Your task to perform on an android device: check google app version Image 0: 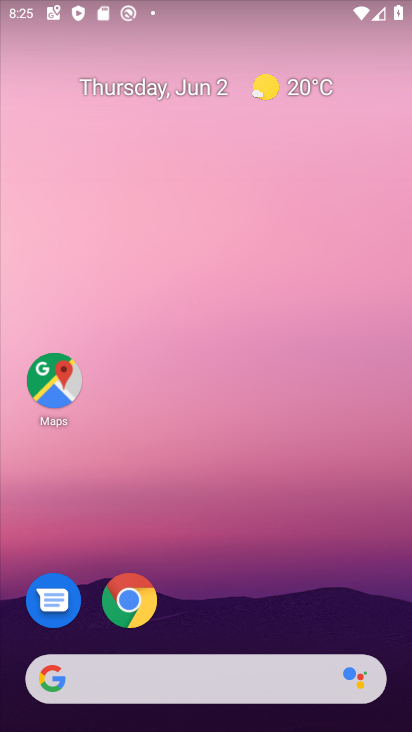
Step 0: drag from (352, 623) to (362, 178)
Your task to perform on an android device: check google app version Image 1: 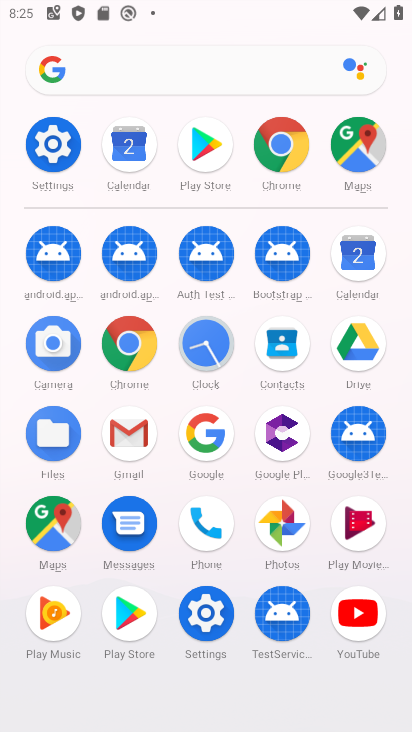
Step 1: click (211, 447)
Your task to perform on an android device: check google app version Image 2: 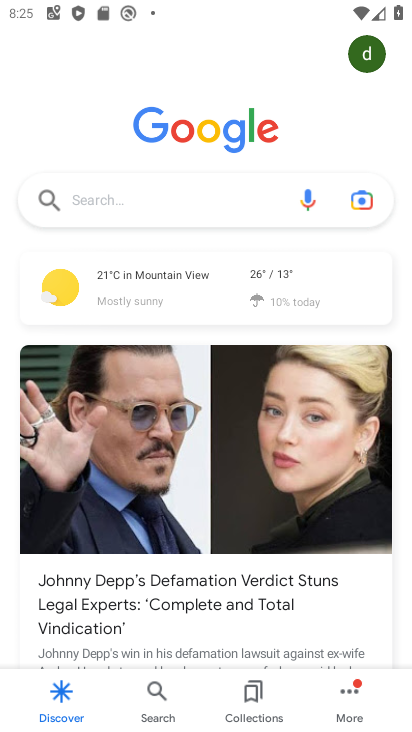
Step 2: click (354, 701)
Your task to perform on an android device: check google app version Image 3: 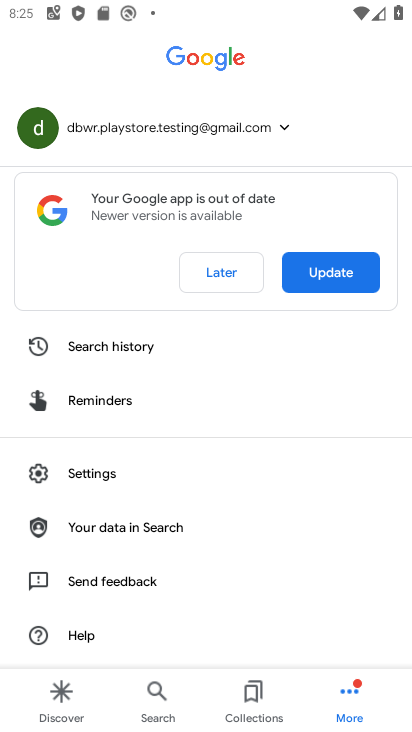
Step 3: drag from (262, 604) to (278, 400)
Your task to perform on an android device: check google app version Image 4: 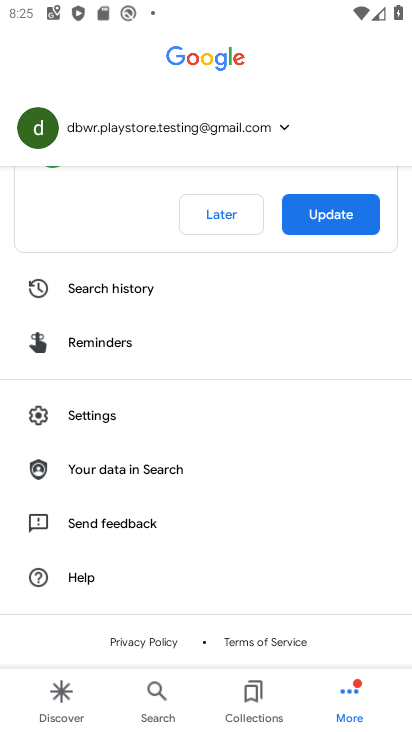
Step 4: click (127, 412)
Your task to perform on an android device: check google app version Image 5: 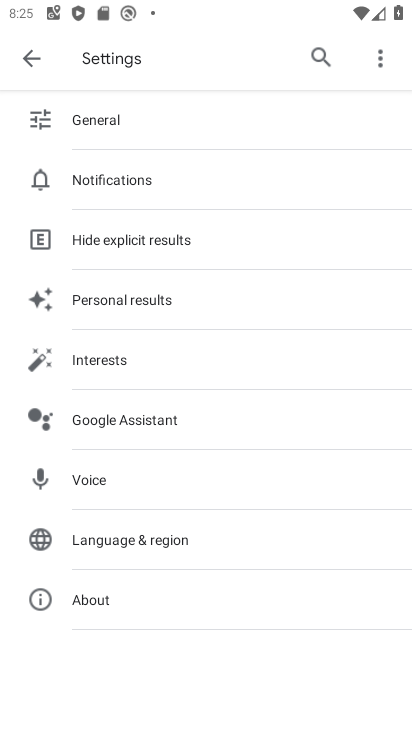
Step 5: drag from (312, 203) to (300, 458)
Your task to perform on an android device: check google app version Image 6: 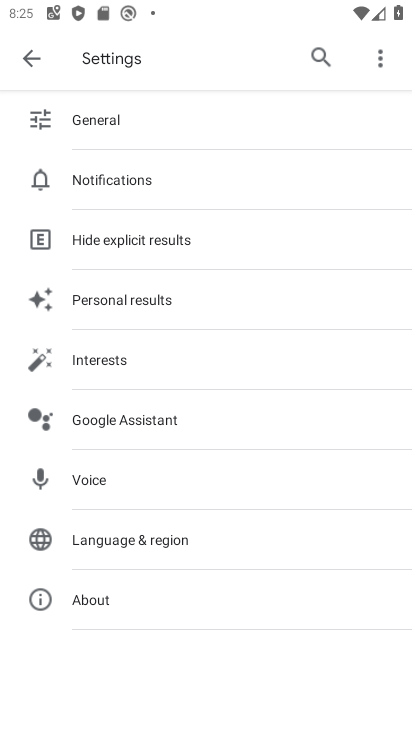
Step 6: click (203, 611)
Your task to perform on an android device: check google app version Image 7: 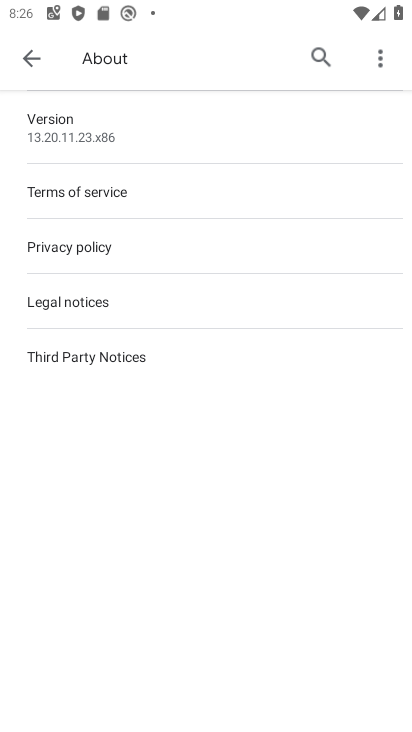
Step 7: task complete